Your task to perform on an android device: Go to Google maps Image 0: 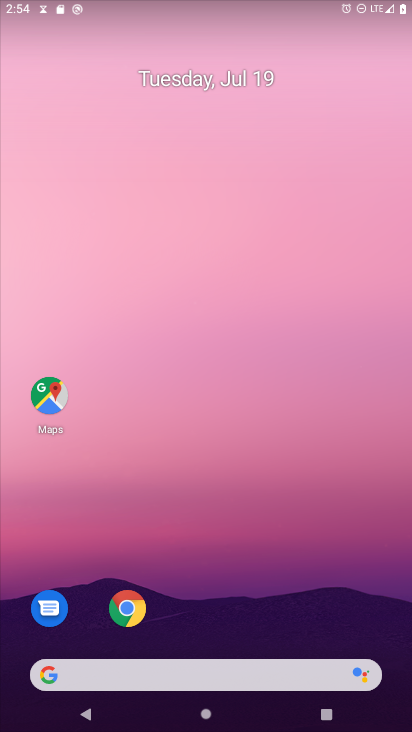
Step 0: drag from (329, 676) to (332, 27)
Your task to perform on an android device: Go to Google maps Image 1: 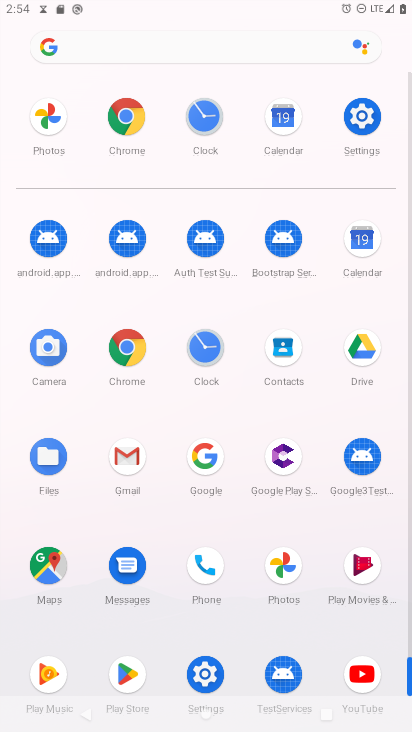
Step 1: click (51, 565)
Your task to perform on an android device: Go to Google maps Image 2: 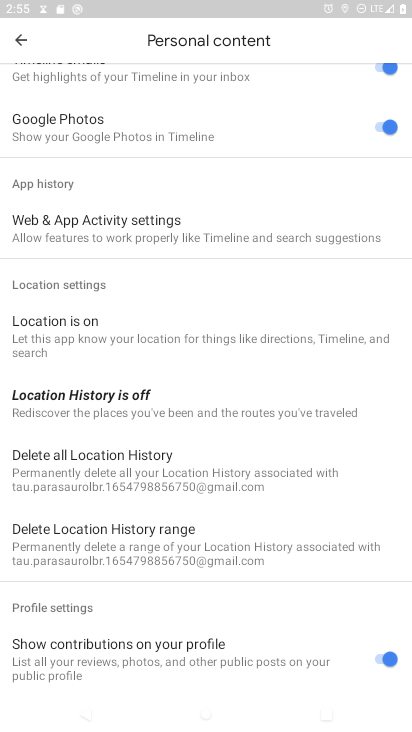
Step 2: task complete